Your task to perform on an android device: change the clock display to digital Image 0: 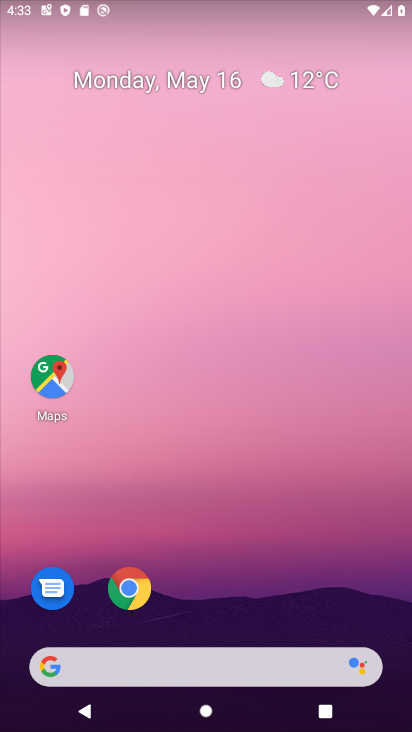
Step 0: drag from (230, 628) to (255, 119)
Your task to perform on an android device: change the clock display to digital Image 1: 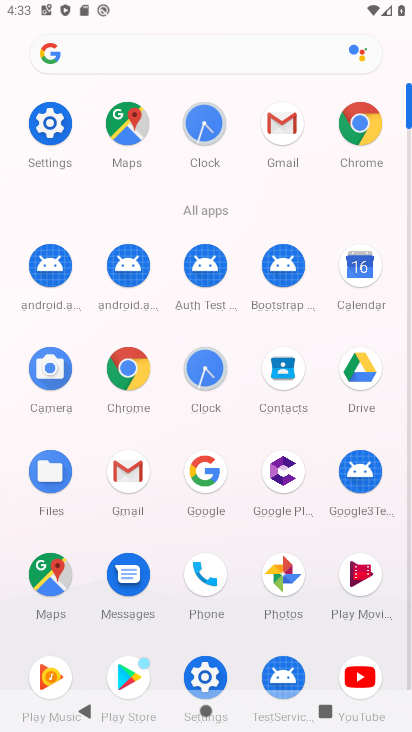
Step 1: click (204, 370)
Your task to perform on an android device: change the clock display to digital Image 2: 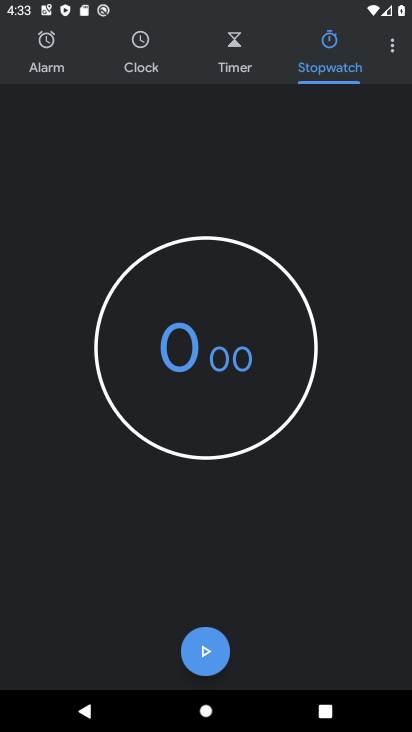
Step 2: click (391, 42)
Your task to perform on an android device: change the clock display to digital Image 3: 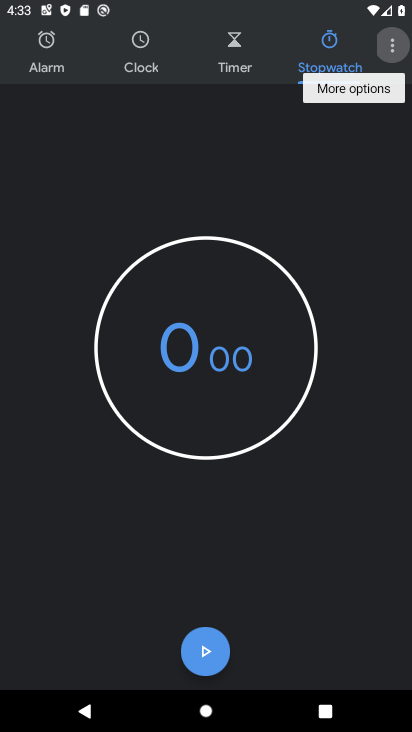
Step 3: click (391, 42)
Your task to perform on an android device: change the clock display to digital Image 4: 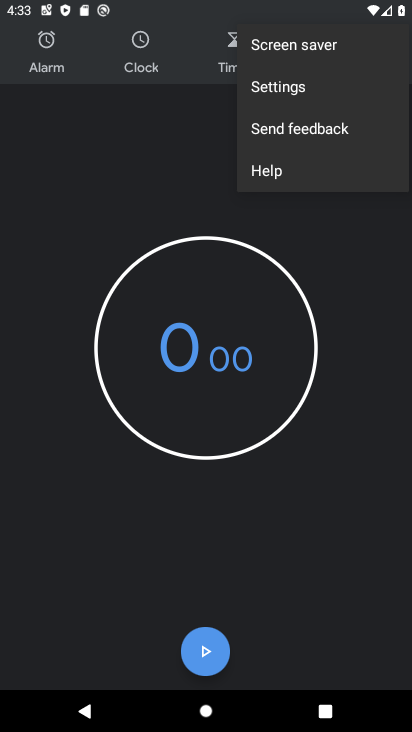
Step 4: click (279, 95)
Your task to perform on an android device: change the clock display to digital Image 5: 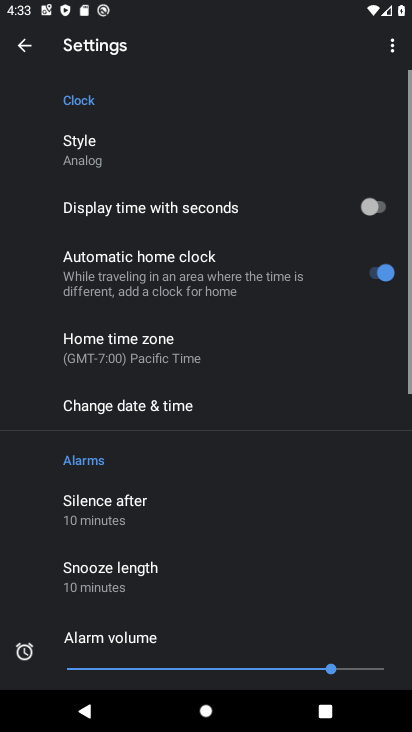
Step 5: click (103, 153)
Your task to perform on an android device: change the clock display to digital Image 6: 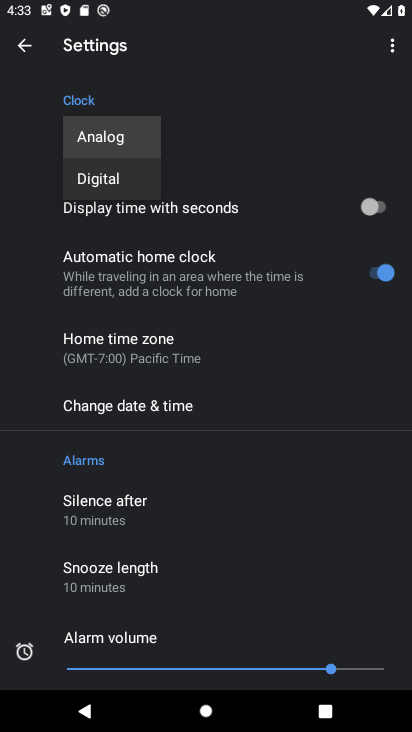
Step 6: click (118, 178)
Your task to perform on an android device: change the clock display to digital Image 7: 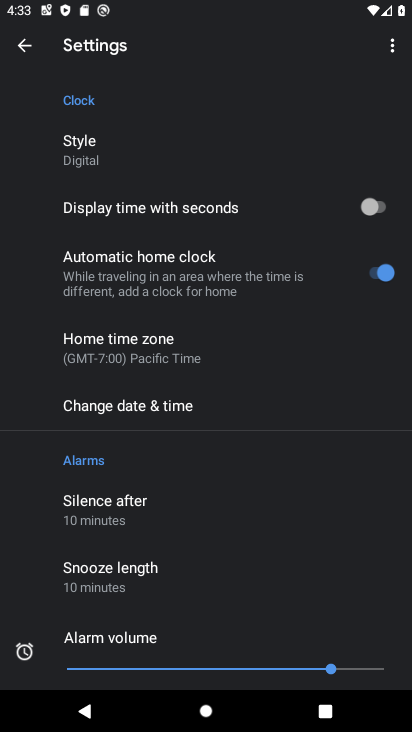
Step 7: task complete